Your task to perform on an android device: Where can I buy a nice beach towel? Image 0: 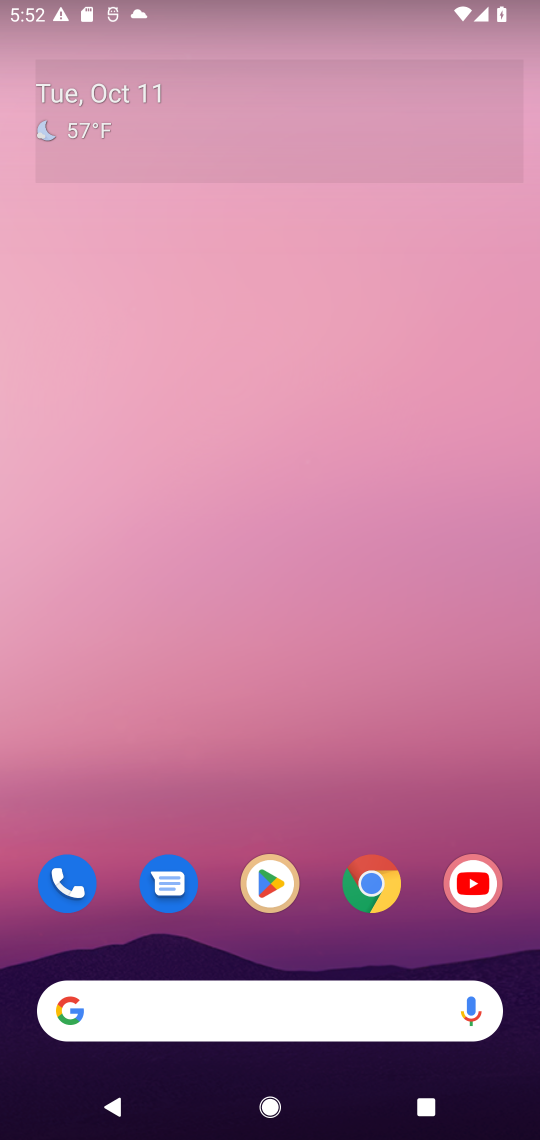
Step 0: drag from (285, 588) to (152, 0)
Your task to perform on an android device: Where can I buy a nice beach towel? Image 1: 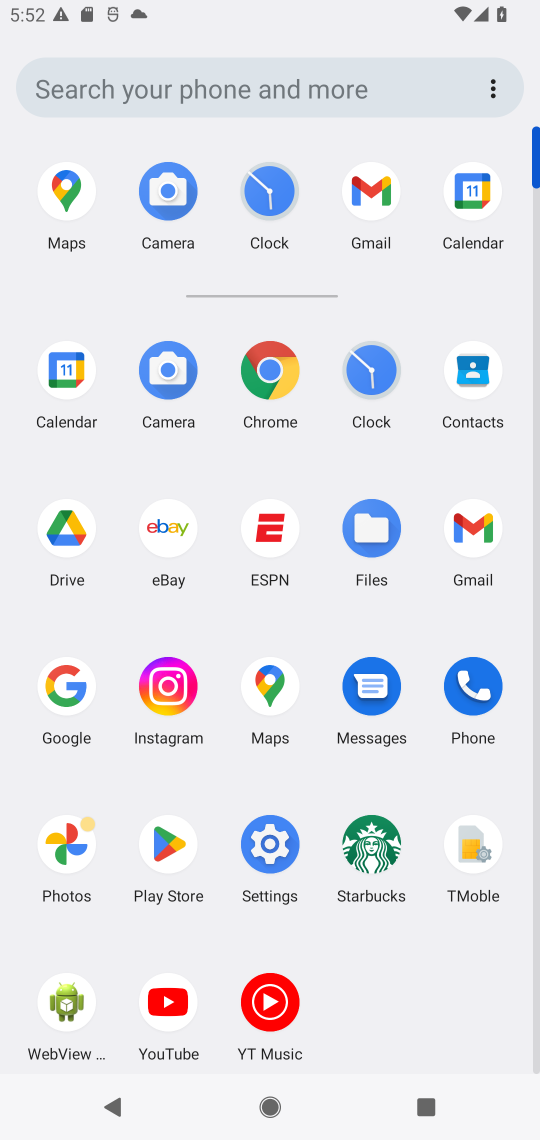
Step 1: click (277, 367)
Your task to perform on an android device: Where can I buy a nice beach towel? Image 2: 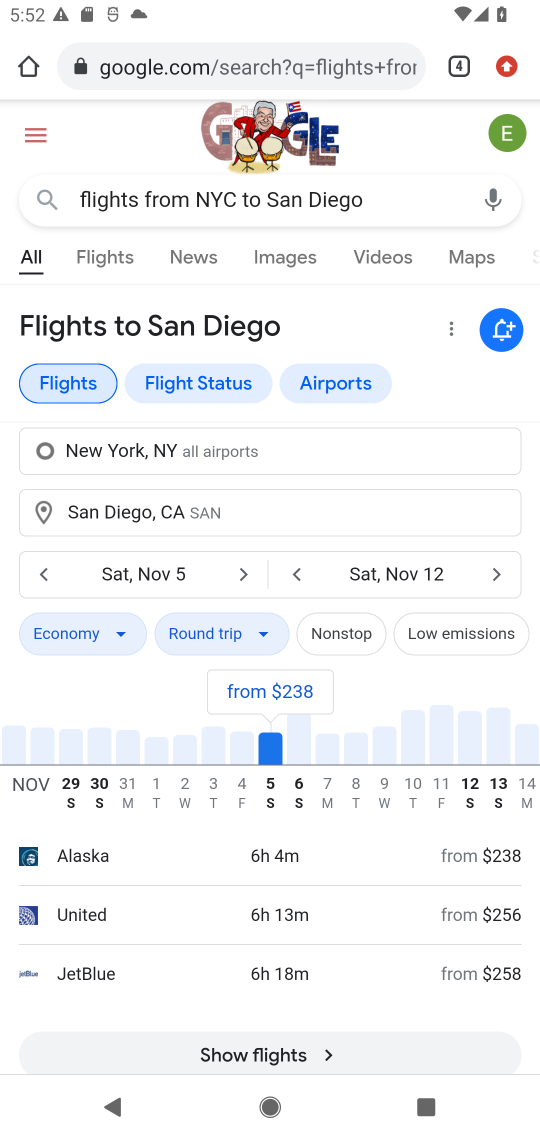
Step 2: click (280, 69)
Your task to perform on an android device: Where can I buy a nice beach towel? Image 3: 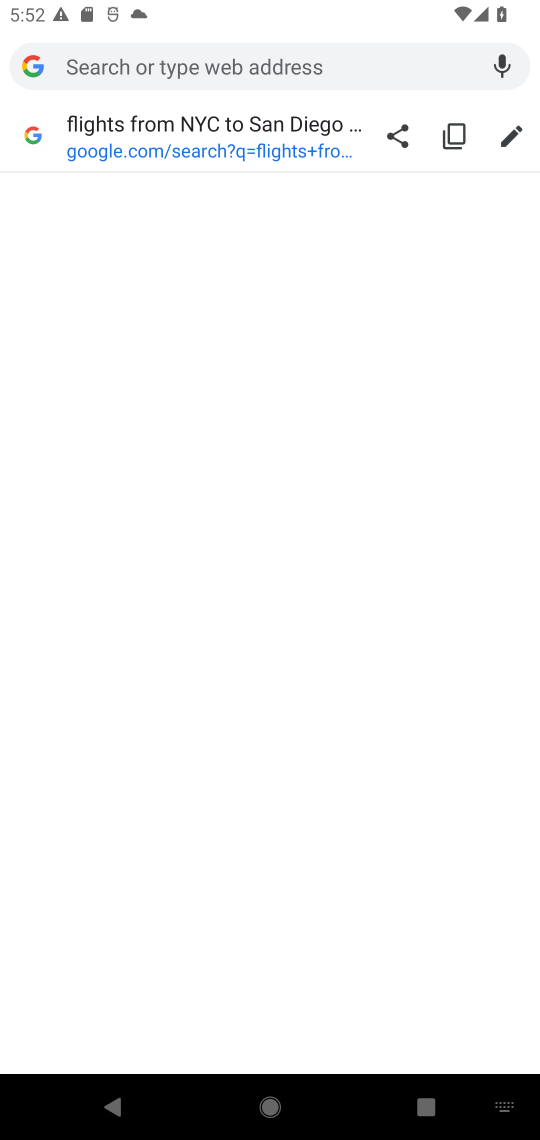
Step 3: type "Where can I buy a nice beach towel"
Your task to perform on an android device: Where can I buy a nice beach towel? Image 4: 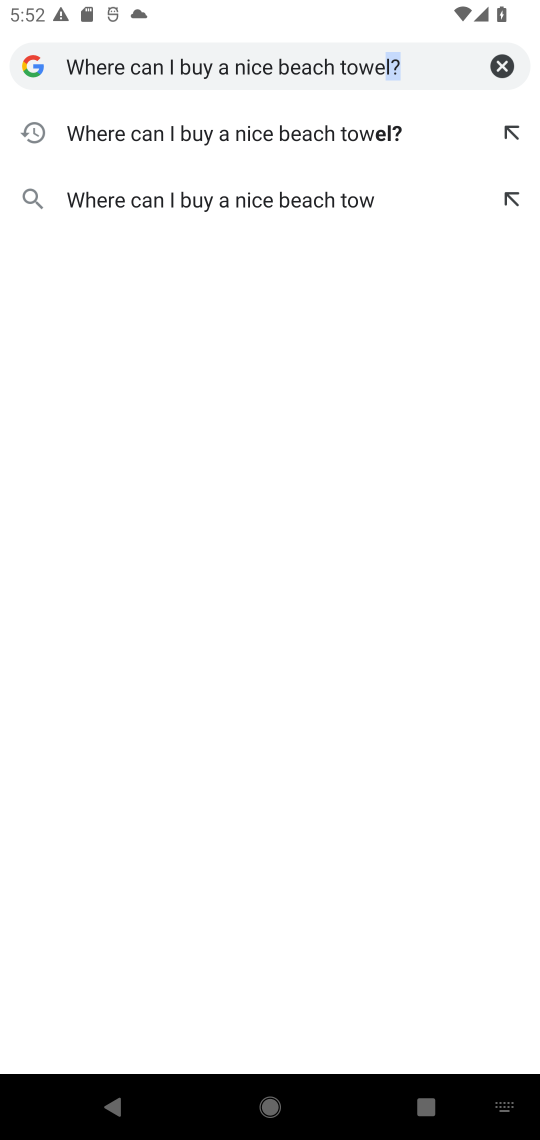
Step 4: press enter
Your task to perform on an android device: Where can I buy a nice beach towel? Image 5: 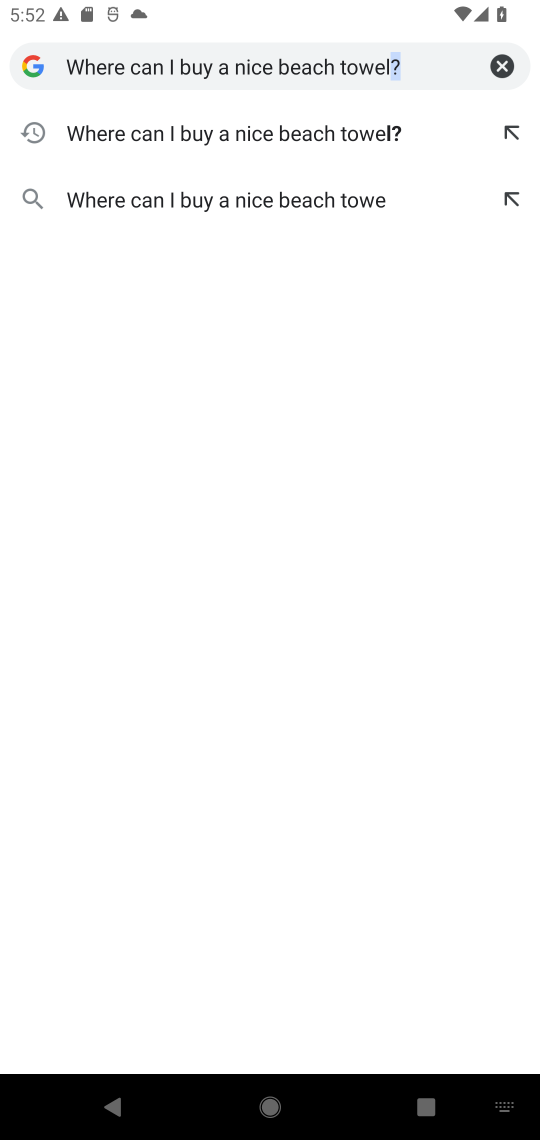
Step 5: type ";"
Your task to perform on an android device: Where can I buy a nice beach towel? Image 6: 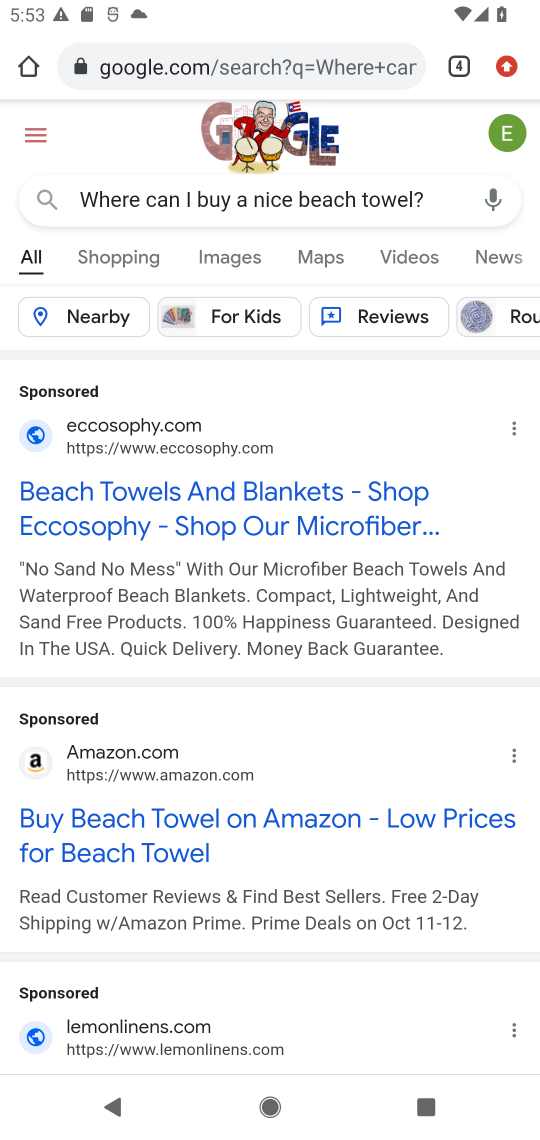
Step 6: task complete